Your task to perform on an android device: change the clock style Image 0: 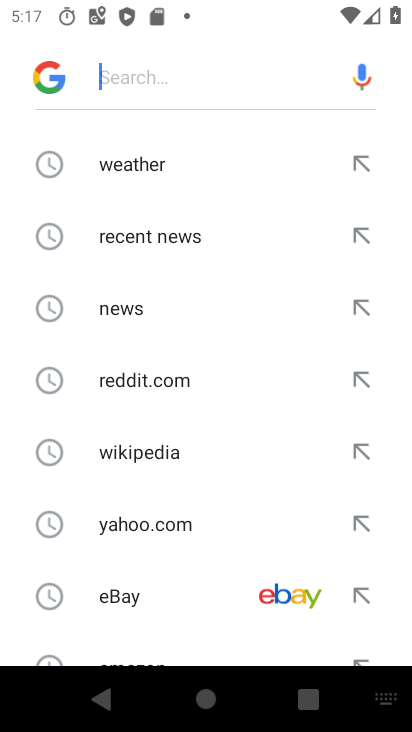
Step 0: press home button
Your task to perform on an android device: change the clock style Image 1: 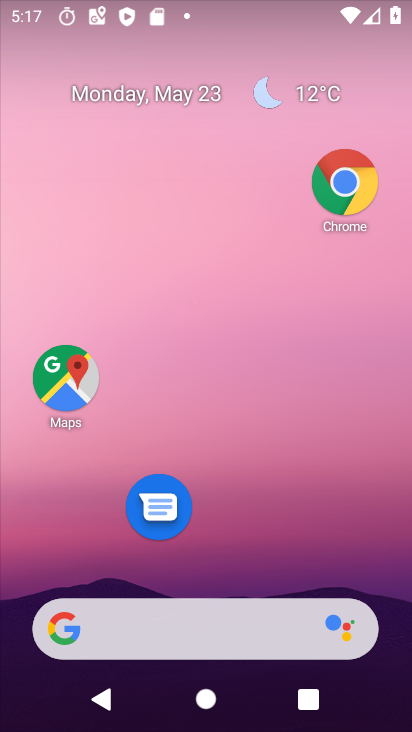
Step 1: drag from (199, 572) to (276, 65)
Your task to perform on an android device: change the clock style Image 2: 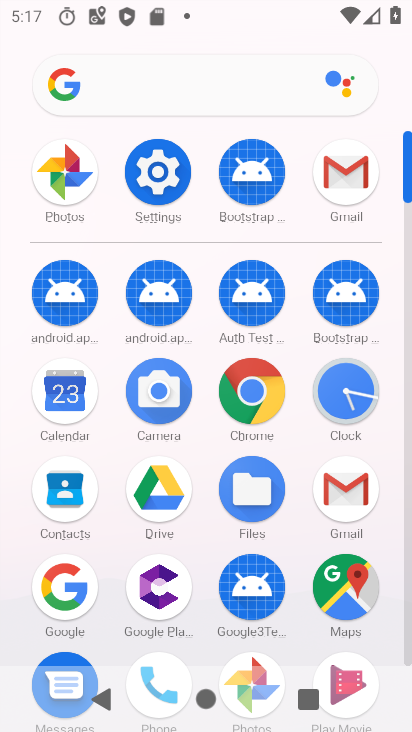
Step 2: click (352, 405)
Your task to perform on an android device: change the clock style Image 3: 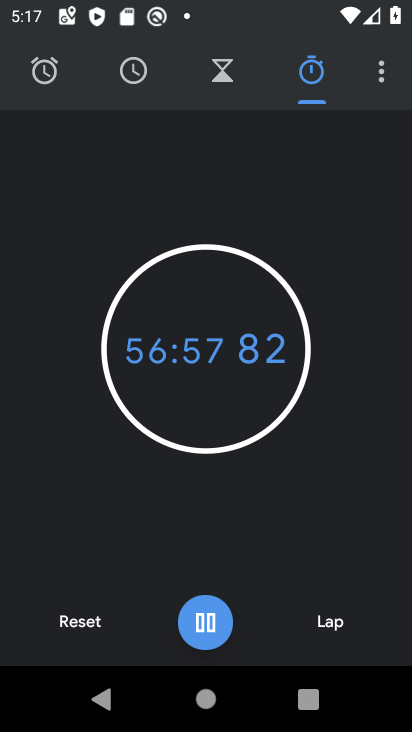
Step 3: click (390, 78)
Your task to perform on an android device: change the clock style Image 4: 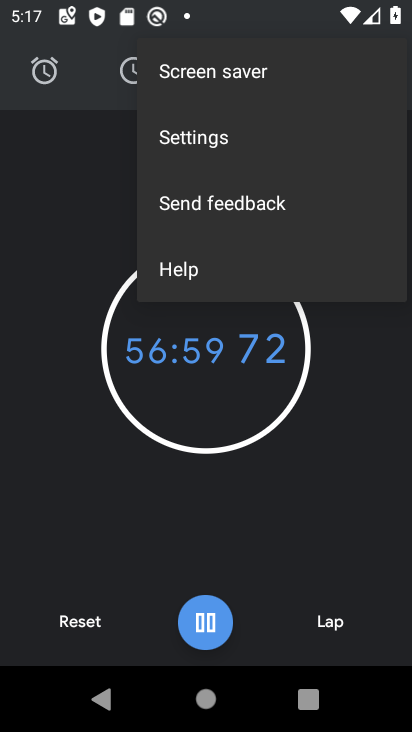
Step 4: click (225, 132)
Your task to perform on an android device: change the clock style Image 5: 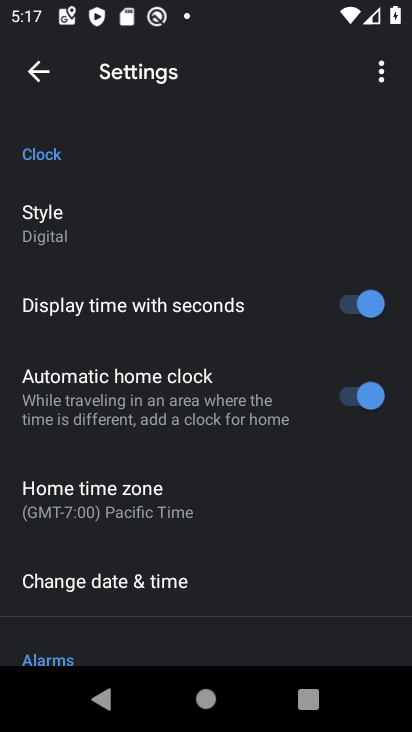
Step 5: click (62, 241)
Your task to perform on an android device: change the clock style Image 6: 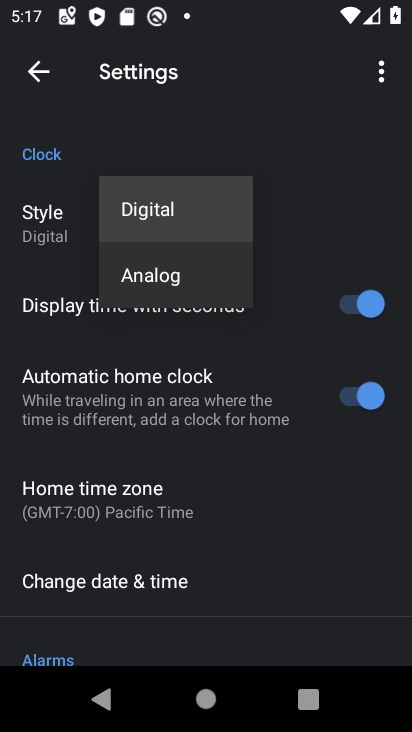
Step 6: click (199, 282)
Your task to perform on an android device: change the clock style Image 7: 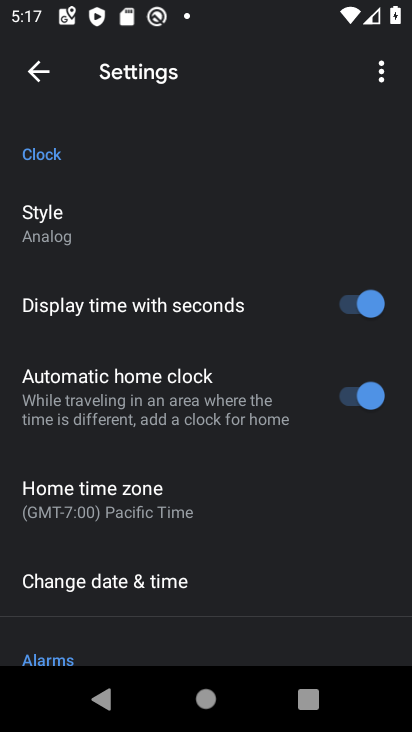
Step 7: task complete